Your task to perform on an android device: show emergency info Image 0: 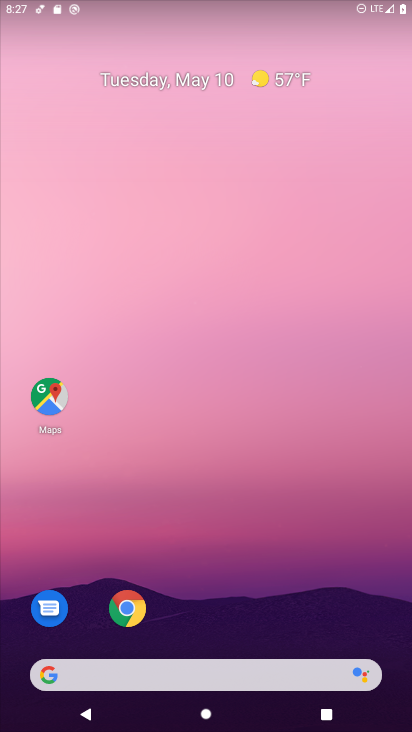
Step 0: drag from (351, 554) to (211, 52)
Your task to perform on an android device: show emergency info Image 1: 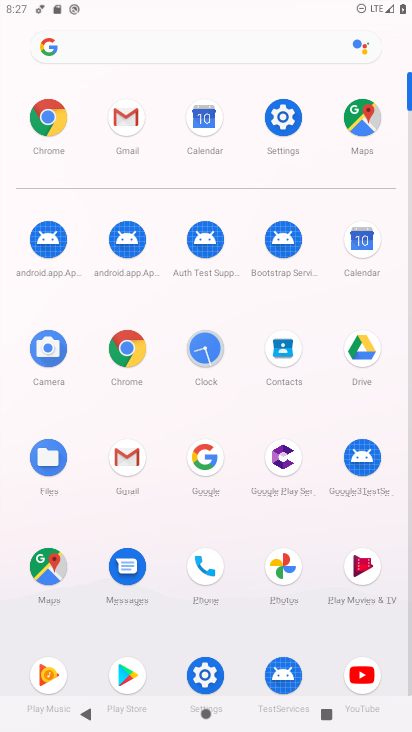
Step 1: click (220, 675)
Your task to perform on an android device: show emergency info Image 2: 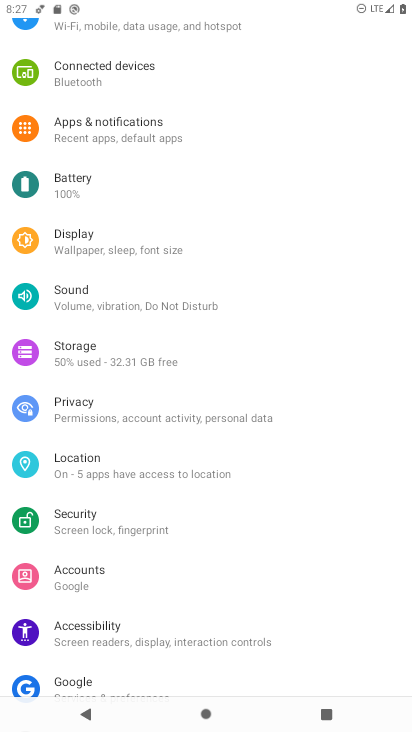
Step 2: drag from (192, 585) to (212, 67)
Your task to perform on an android device: show emergency info Image 3: 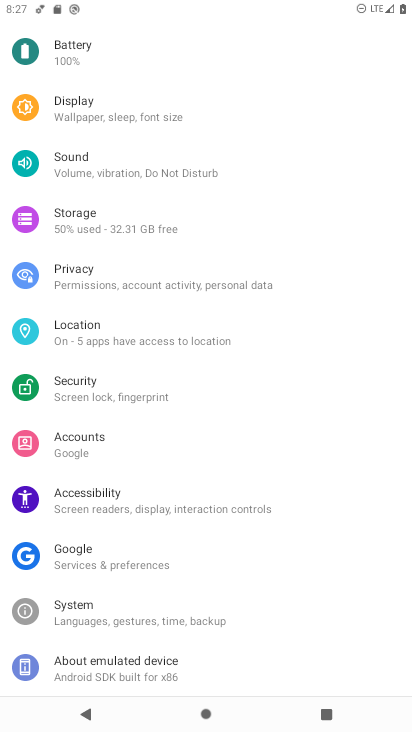
Step 3: click (161, 657)
Your task to perform on an android device: show emergency info Image 4: 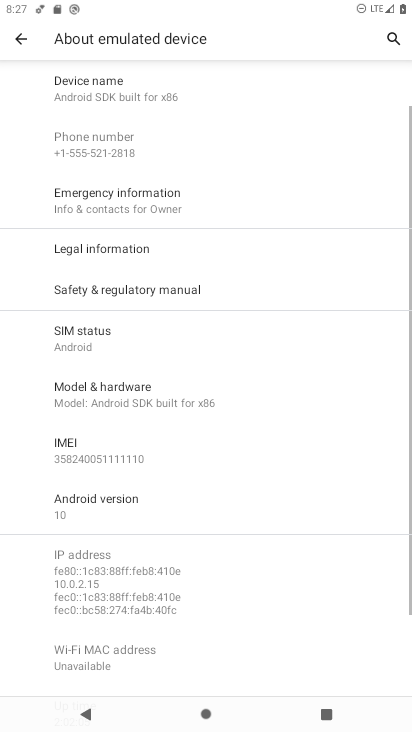
Step 4: click (199, 207)
Your task to perform on an android device: show emergency info Image 5: 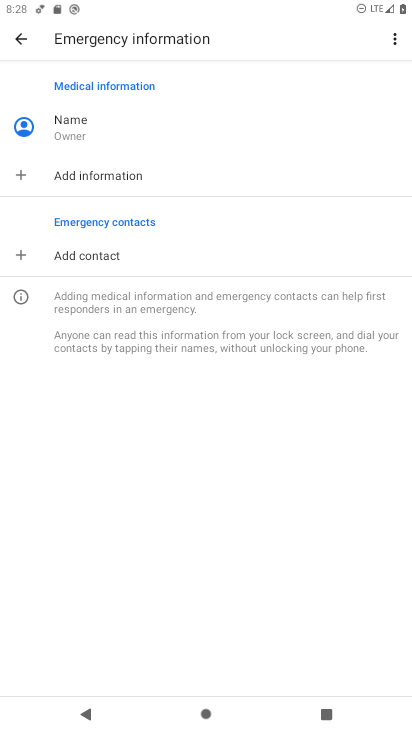
Step 5: task complete